Your task to perform on an android device: toggle show notifications on the lock screen Image 0: 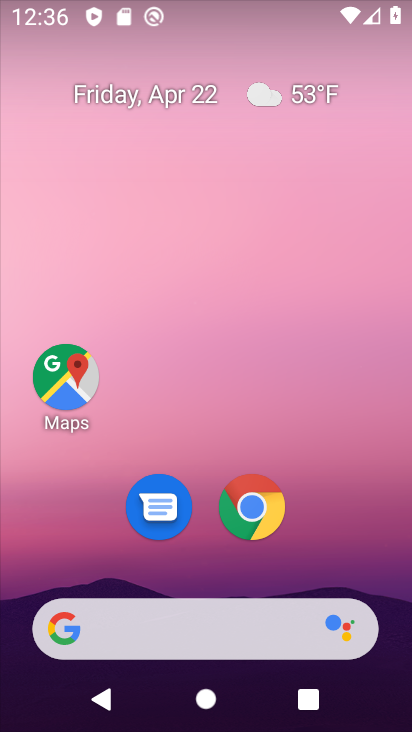
Step 0: drag from (212, 581) to (277, 318)
Your task to perform on an android device: toggle show notifications on the lock screen Image 1: 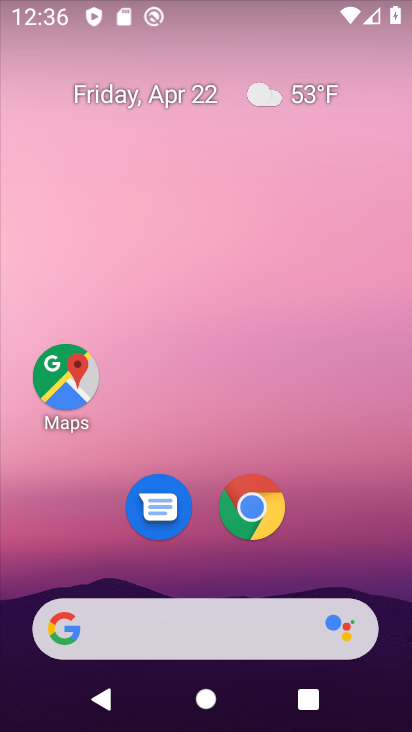
Step 1: drag from (213, 580) to (299, 167)
Your task to perform on an android device: toggle show notifications on the lock screen Image 2: 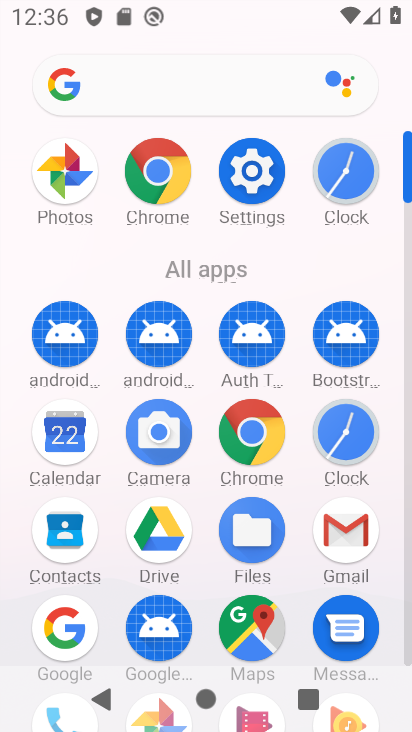
Step 2: click (249, 176)
Your task to perform on an android device: toggle show notifications on the lock screen Image 3: 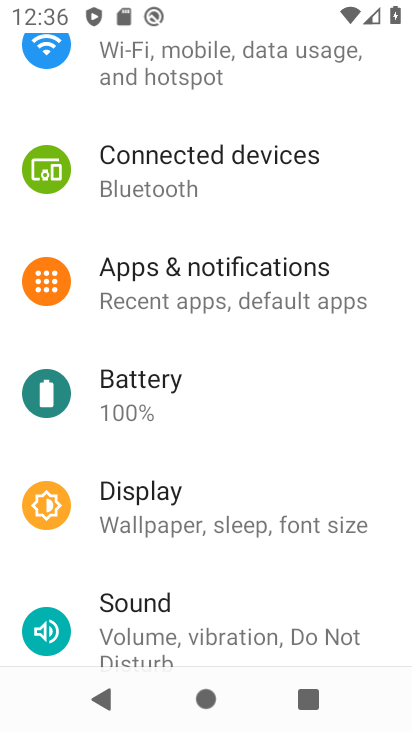
Step 3: drag from (250, 406) to (251, 190)
Your task to perform on an android device: toggle show notifications on the lock screen Image 4: 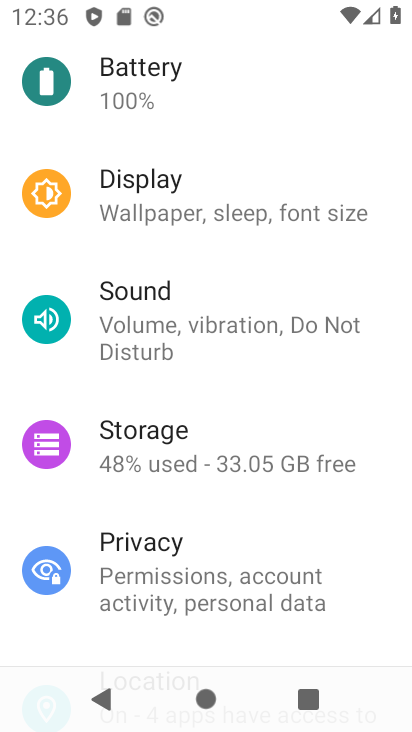
Step 4: drag from (246, 209) to (221, 605)
Your task to perform on an android device: toggle show notifications on the lock screen Image 5: 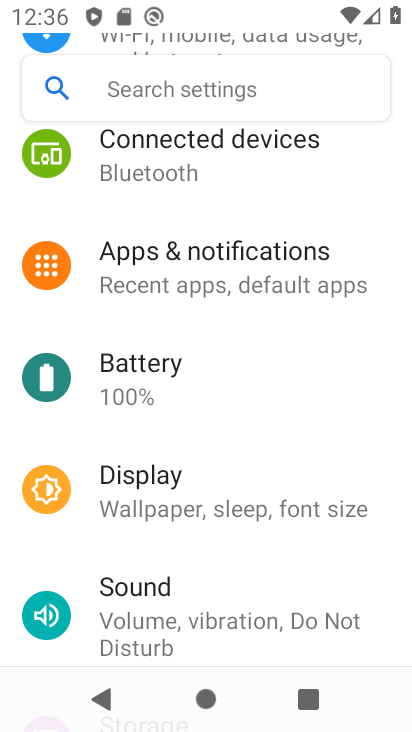
Step 5: click (202, 280)
Your task to perform on an android device: toggle show notifications on the lock screen Image 6: 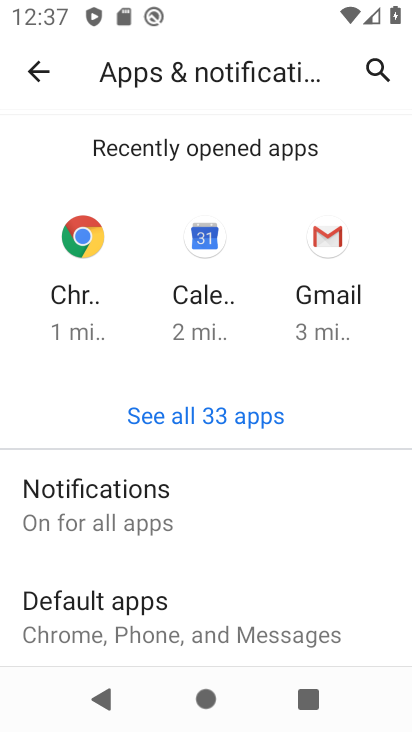
Step 6: click (116, 517)
Your task to perform on an android device: toggle show notifications on the lock screen Image 7: 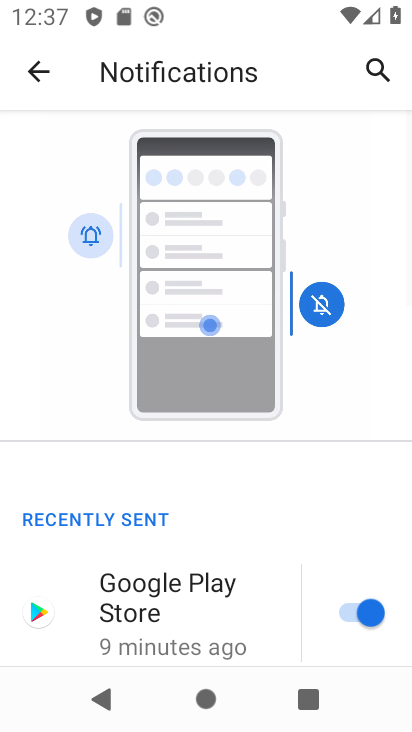
Step 7: drag from (185, 580) to (252, 60)
Your task to perform on an android device: toggle show notifications on the lock screen Image 8: 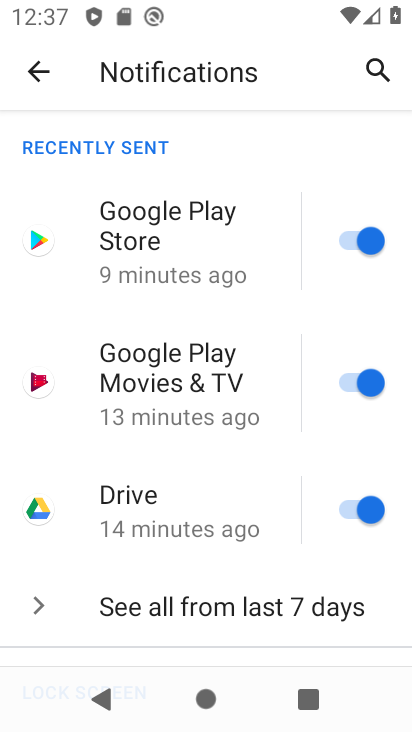
Step 8: drag from (191, 616) to (249, 100)
Your task to perform on an android device: toggle show notifications on the lock screen Image 9: 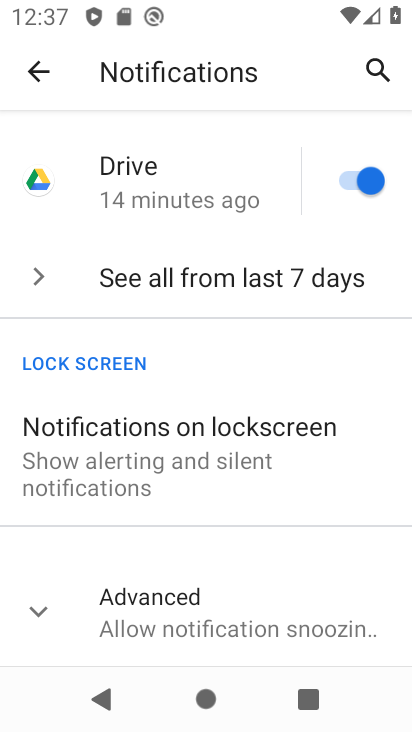
Step 9: click (244, 465)
Your task to perform on an android device: toggle show notifications on the lock screen Image 10: 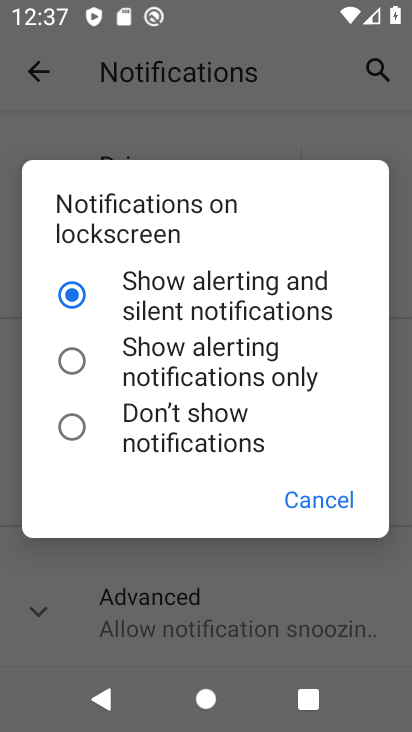
Step 10: click (194, 385)
Your task to perform on an android device: toggle show notifications on the lock screen Image 11: 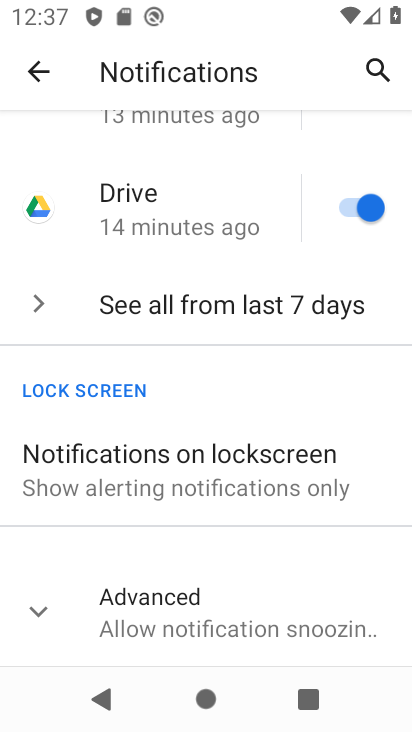
Step 11: task complete